Your task to perform on an android device: change your default location settings in chrome Image 0: 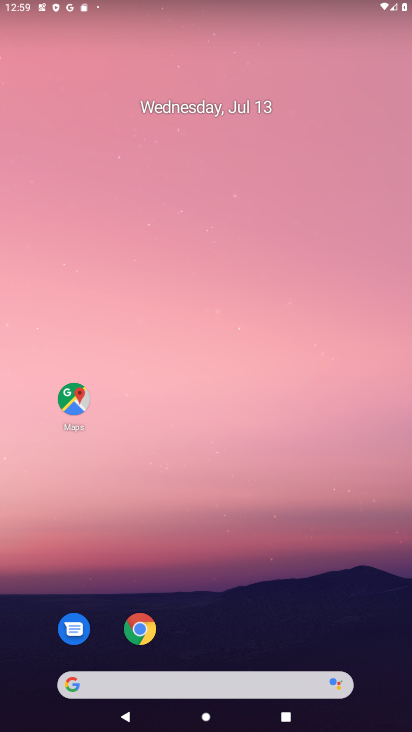
Step 0: drag from (208, 514) to (192, 225)
Your task to perform on an android device: change your default location settings in chrome Image 1: 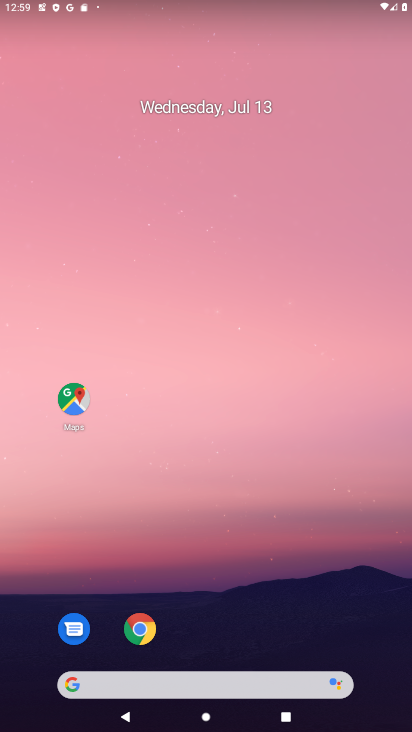
Step 1: click (254, 651)
Your task to perform on an android device: change your default location settings in chrome Image 2: 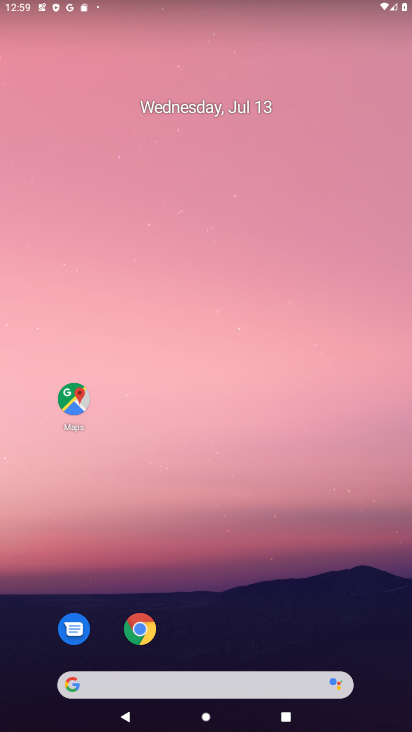
Step 2: click (131, 619)
Your task to perform on an android device: change your default location settings in chrome Image 3: 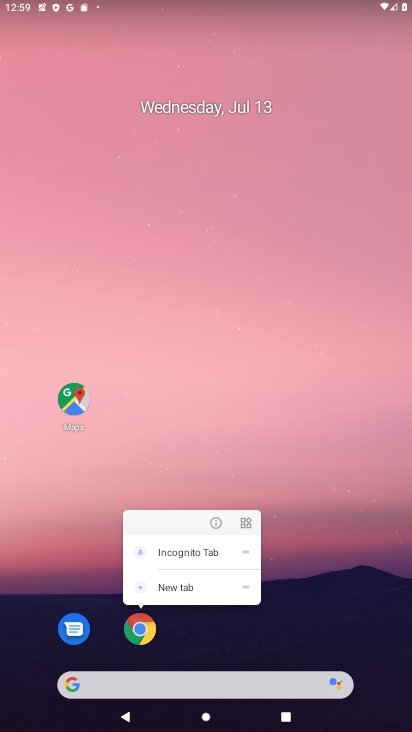
Step 3: click (131, 619)
Your task to perform on an android device: change your default location settings in chrome Image 4: 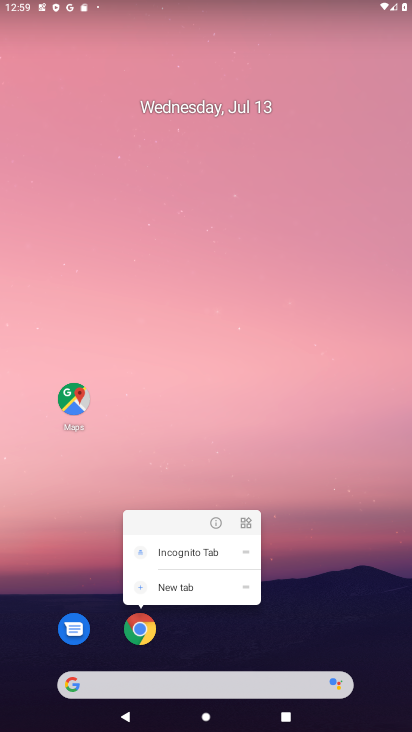
Step 4: click (270, 661)
Your task to perform on an android device: change your default location settings in chrome Image 5: 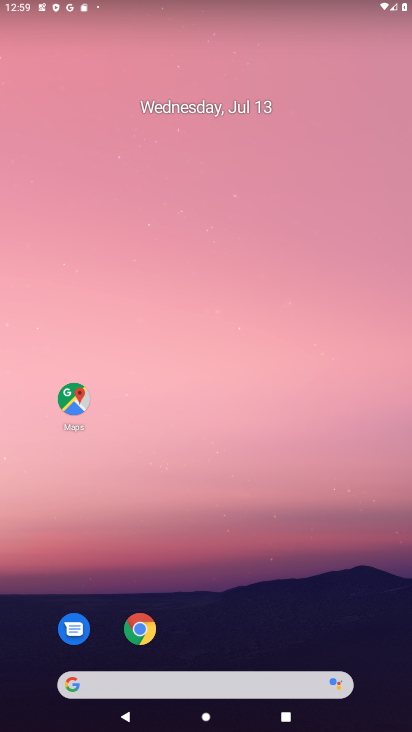
Step 5: click (147, 626)
Your task to perform on an android device: change your default location settings in chrome Image 6: 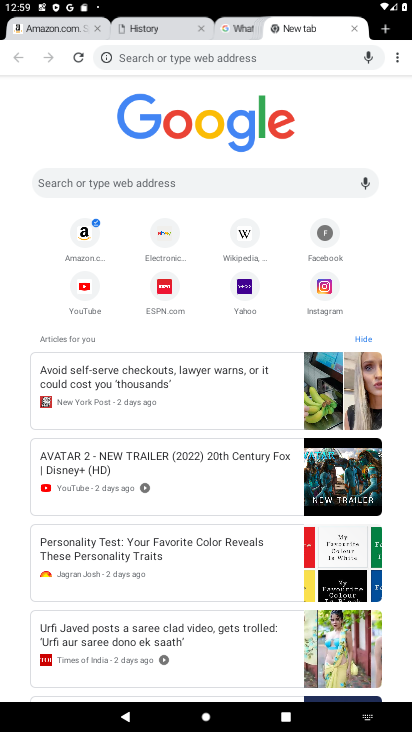
Step 6: click (391, 43)
Your task to perform on an android device: change your default location settings in chrome Image 7: 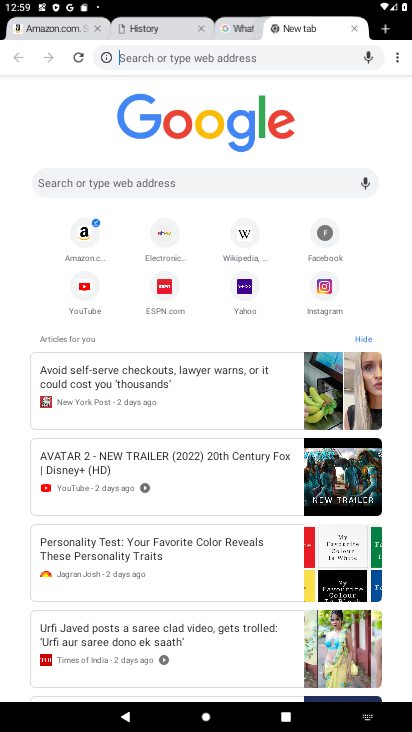
Step 7: click (396, 59)
Your task to perform on an android device: change your default location settings in chrome Image 8: 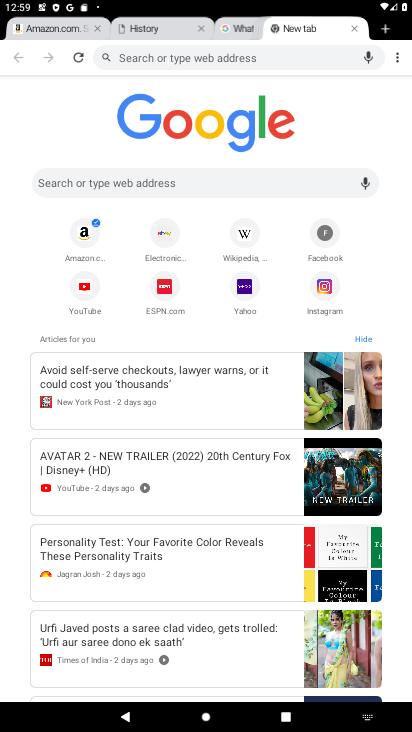
Step 8: click (391, 61)
Your task to perform on an android device: change your default location settings in chrome Image 9: 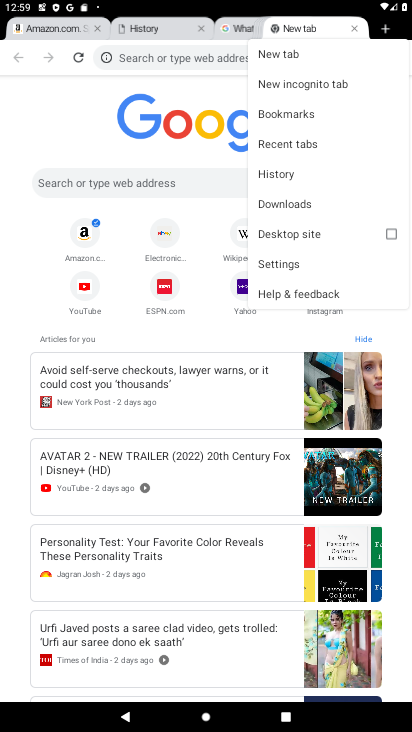
Step 9: click (259, 267)
Your task to perform on an android device: change your default location settings in chrome Image 10: 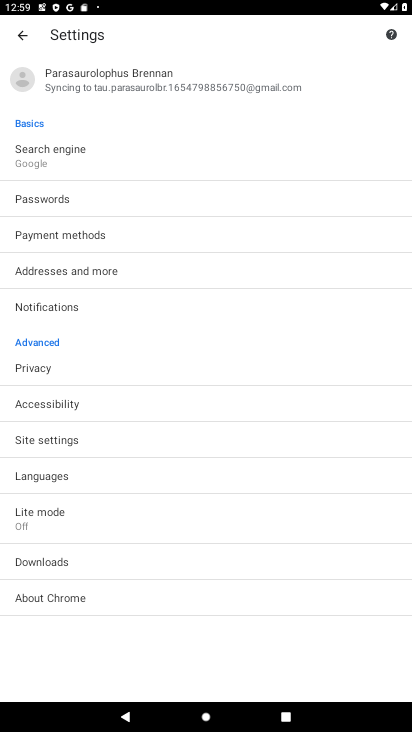
Step 10: click (69, 443)
Your task to perform on an android device: change your default location settings in chrome Image 11: 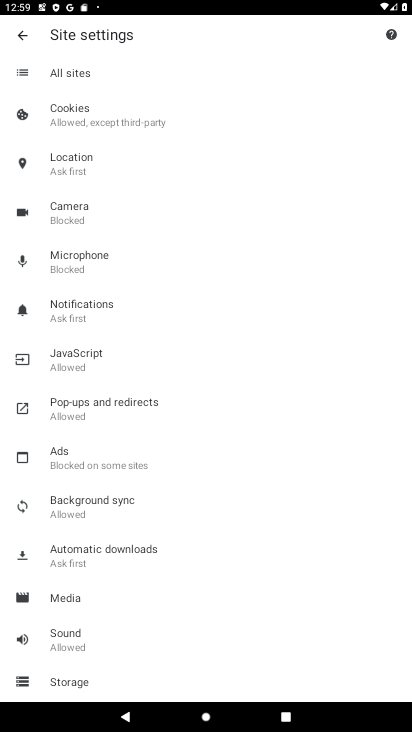
Step 11: click (90, 156)
Your task to perform on an android device: change your default location settings in chrome Image 12: 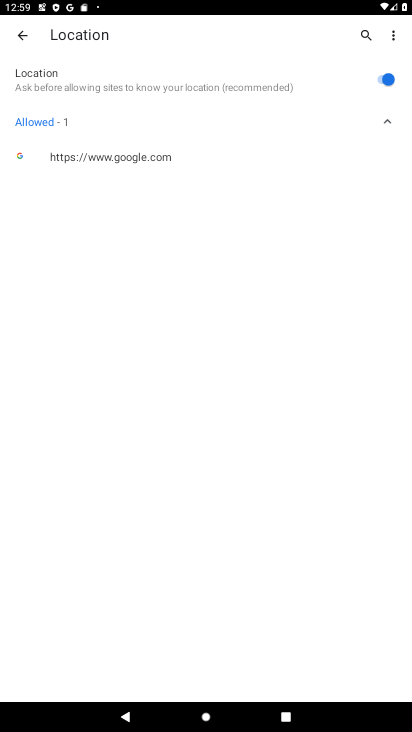
Step 12: click (380, 78)
Your task to perform on an android device: change your default location settings in chrome Image 13: 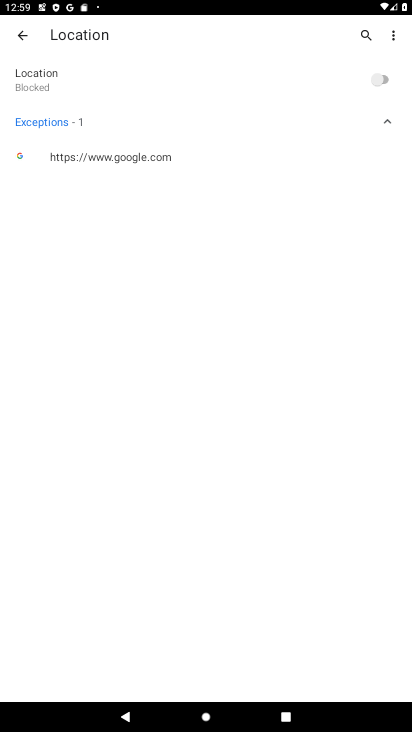
Step 13: task complete